Your task to perform on an android device: snooze an email in the gmail app Image 0: 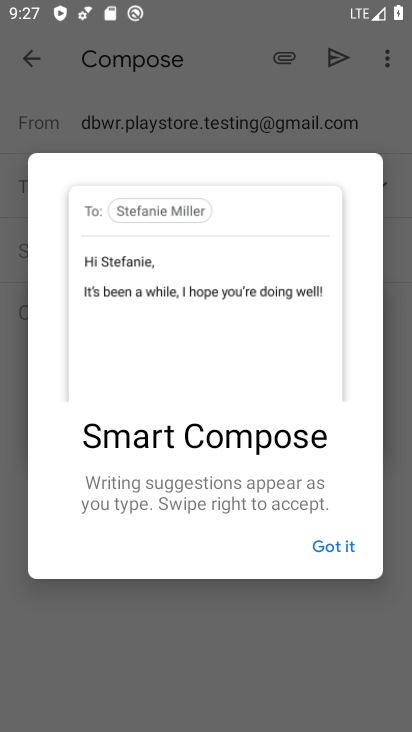
Step 0: press home button
Your task to perform on an android device: snooze an email in the gmail app Image 1: 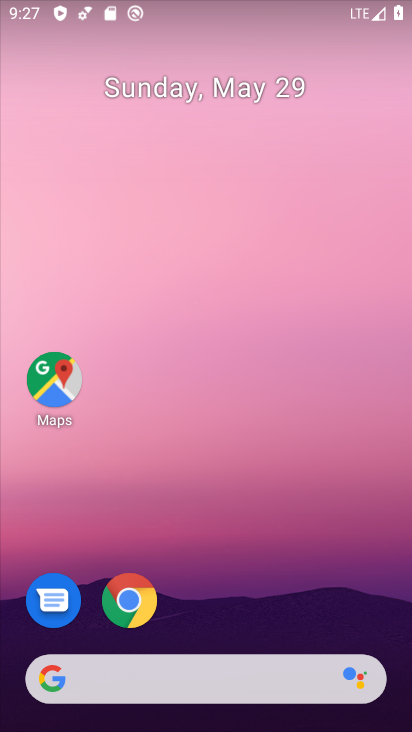
Step 1: drag from (298, 583) to (374, 77)
Your task to perform on an android device: snooze an email in the gmail app Image 2: 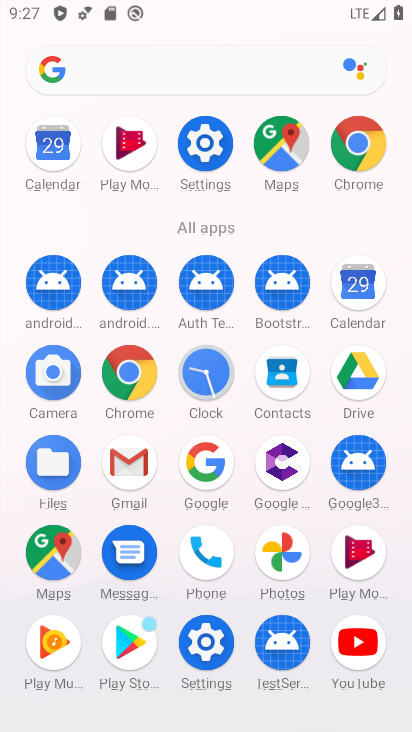
Step 2: click (128, 447)
Your task to perform on an android device: snooze an email in the gmail app Image 3: 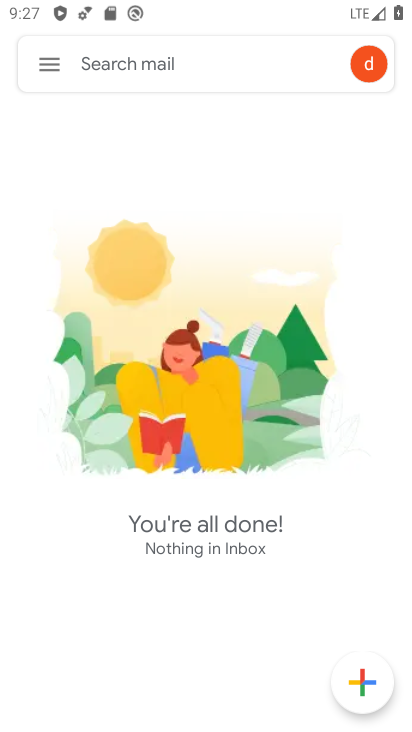
Step 3: task complete